Your task to perform on an android device: Add "usb-c to usb-a" to the cart on costco, then select checkout. Image 0: 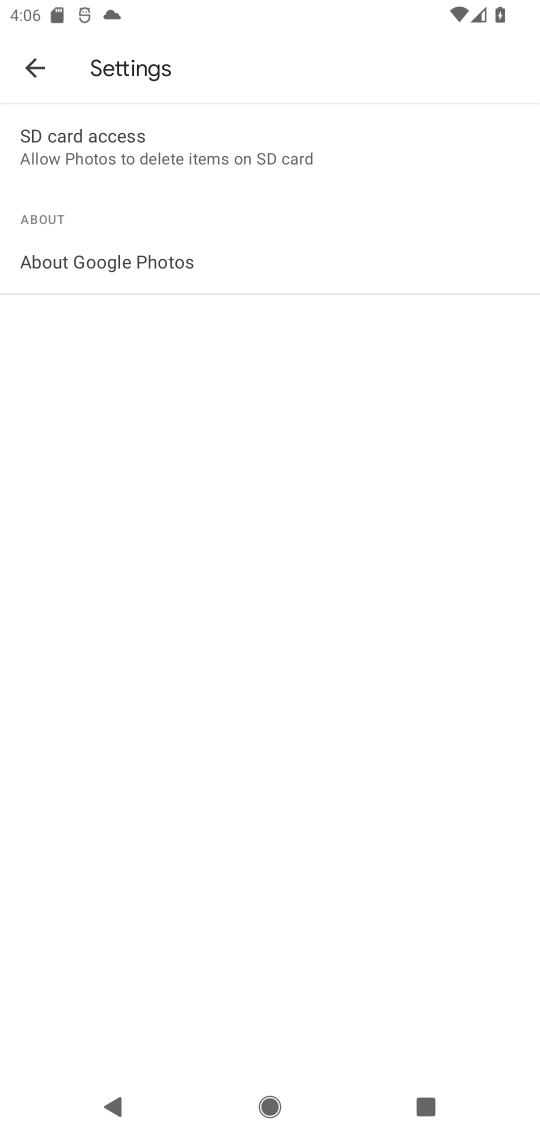
Step 0: press home button
Your task to perform on an android device: Add "usb-c to usb-a" to the cart on costco, then select checkout. Image 1: 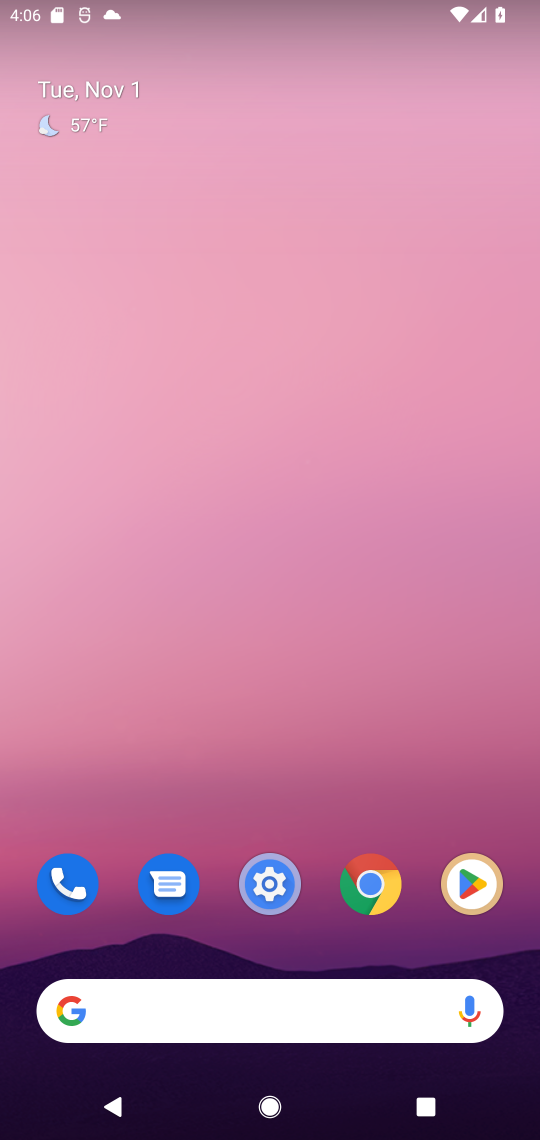
Step 1: click (101, 1011)
Your task to perform on an android device: Add "usb-c to usb-a" to the cart on costco, then select checkout. Image 2: 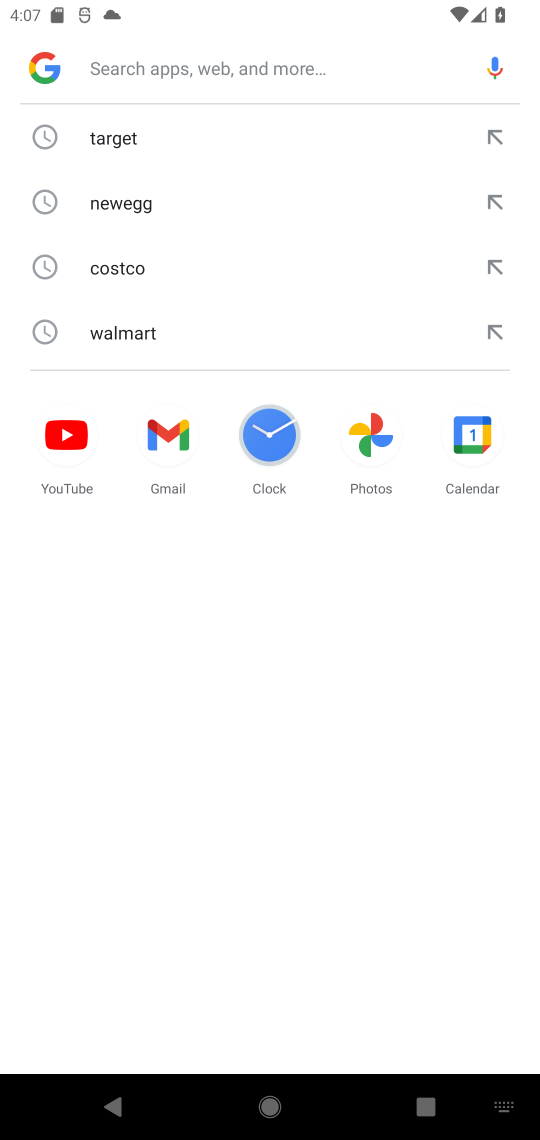
Step 2: type " costco"
Your task to perform on an android device: Add "usb-c to usb-a" to the cart on costco, then select checkout. Image 3: 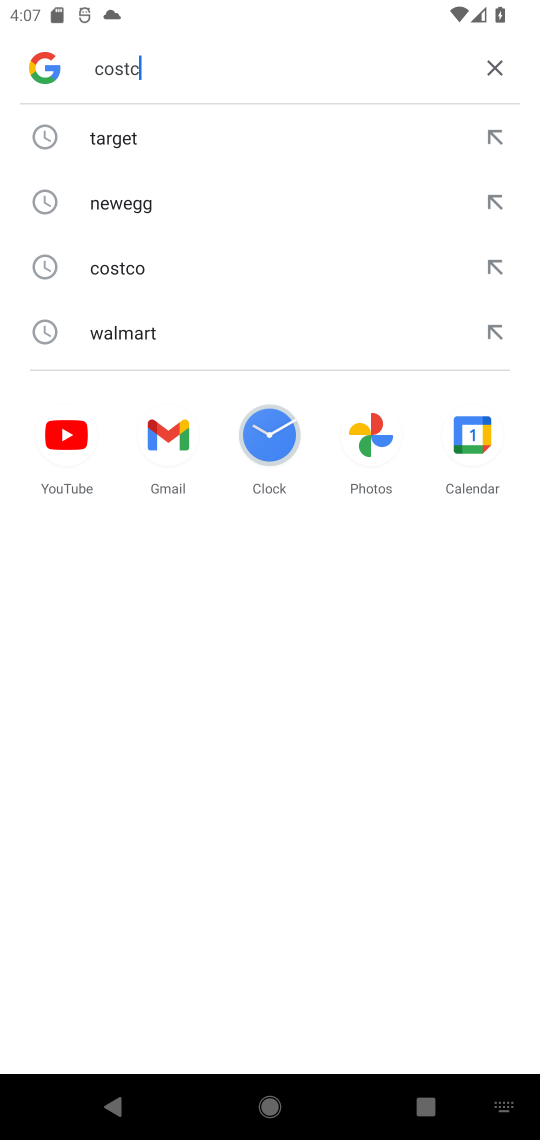
Step 3: press enter
Your task to perform on an android device: Add "usb-c to usb-a" to the cart on costco, then select checkout. Image 4: 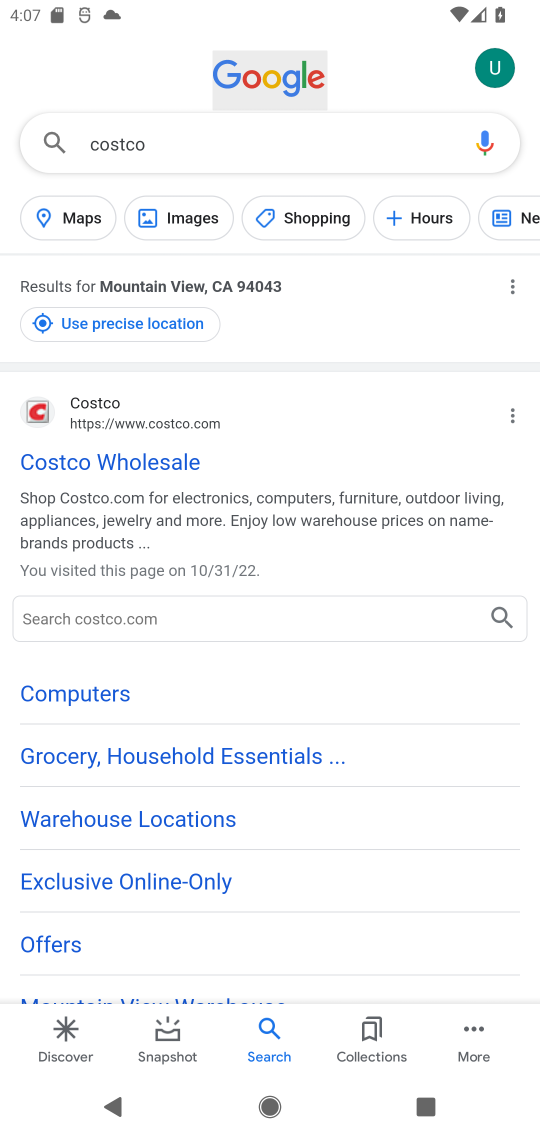
Step 4: click (117, 464)
Your task to perform on an android device: Add "usb-c to usb-a" to the cart on costco, then select checkout. Image 5: 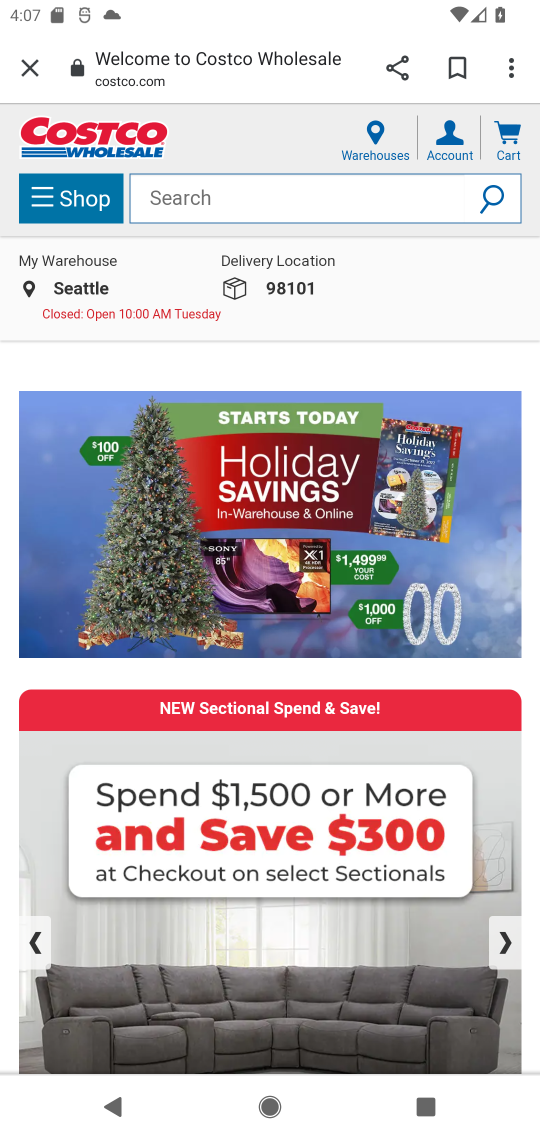
Step 5: click (183, 195)
Your task to perform on an android device: Add "usb-c to usb-a" to the cart on costco, then select checkout. Image 6: 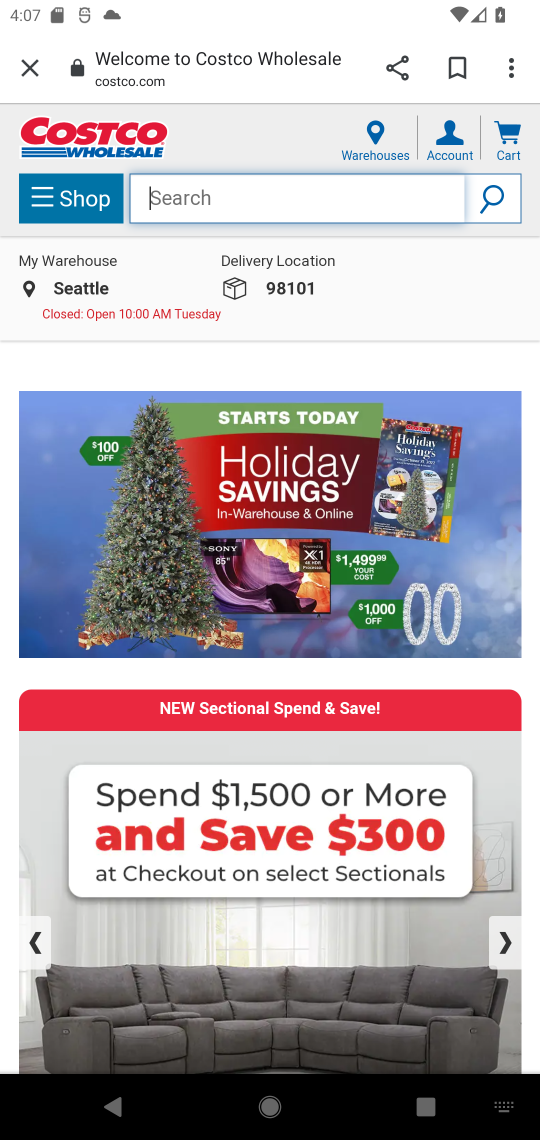
Step 6: type "usb-c to usb-a"
Your task to perform on an android device: Add "usb-c to usb-a" to the cart on costco, then select checkout. Image 7: 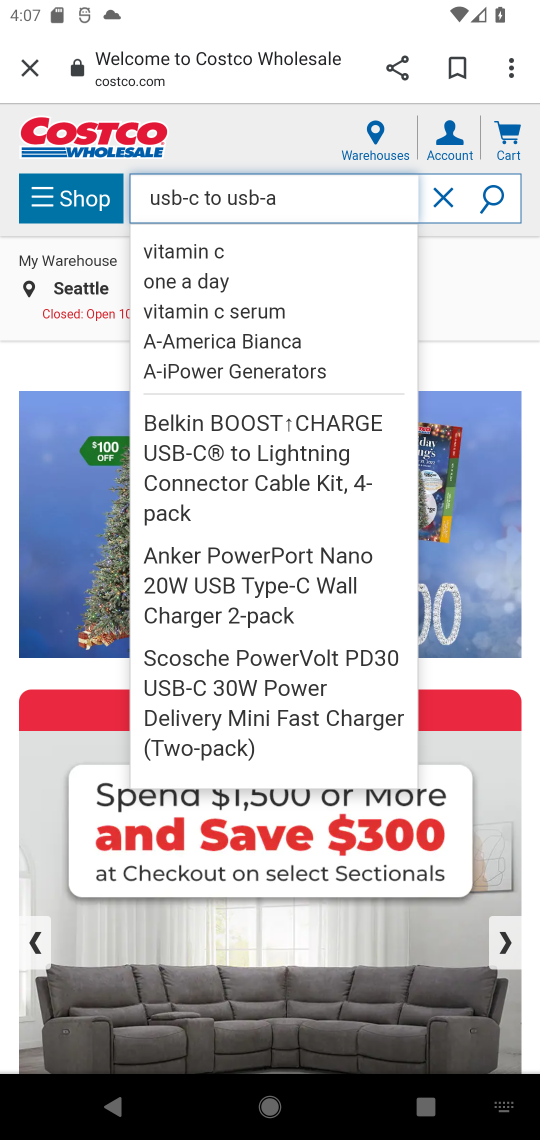
Step 7: click (489, 190)
Your task to perform on an android device: Add "usb-c to usb-a" to the cart on costco, then select checkout. Image 8: 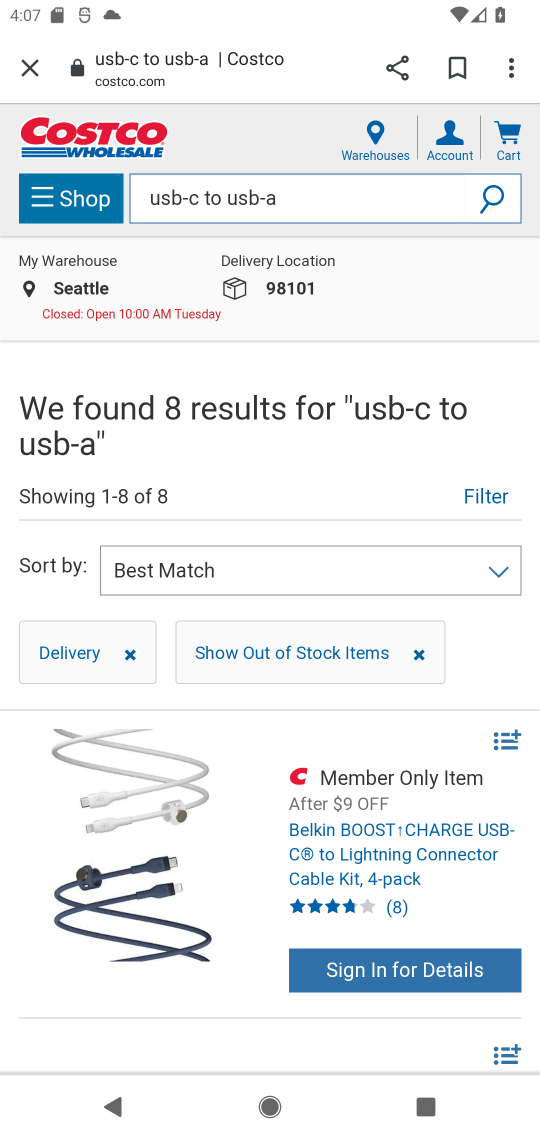
Step 8: task complete